Your task to perform on an android device: Open Chrome and go to settings Image 0: 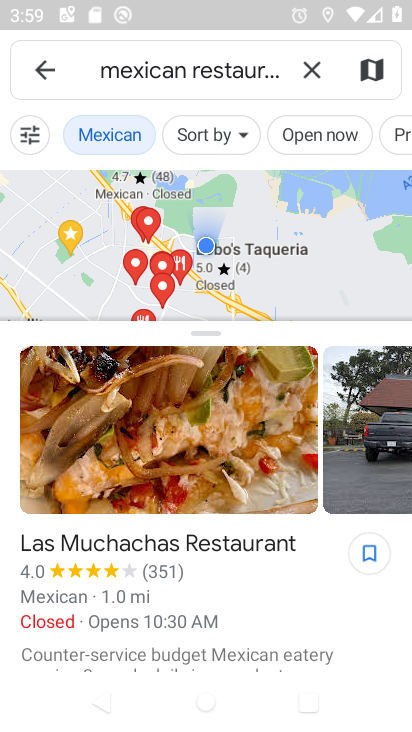
Step 0: press home button
Your task to perform on an android device: Open Chrome and go to settings Image 1: 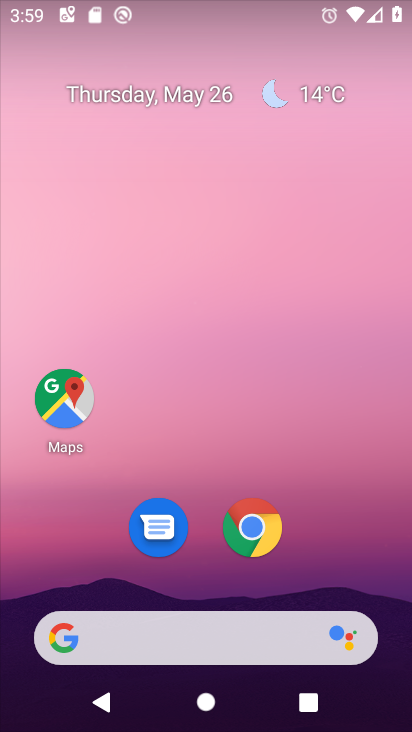
Step 1: click (257, 531)
Your task to perform on an android device: Open Chrome and go to settings Image 2: 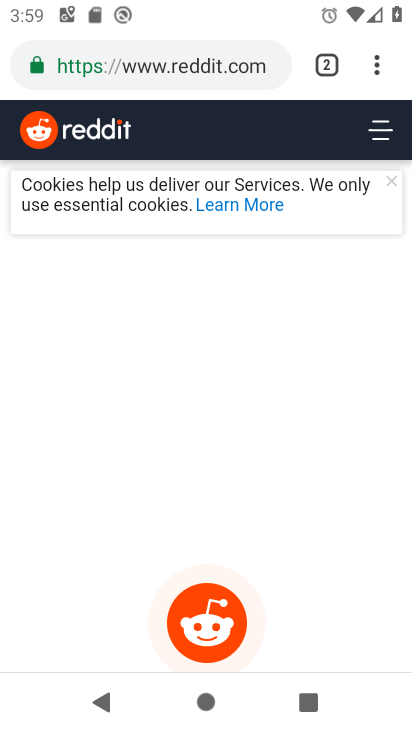
Step 2: click (379, 65)
Your task to perform on an android device: Open Chrome and go to settings Image 3: 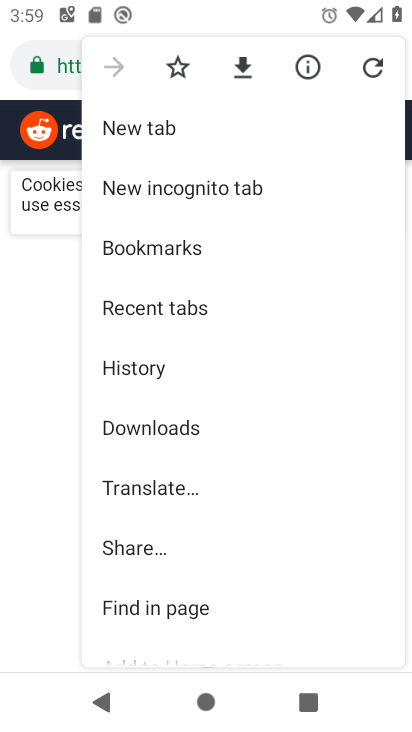
Step 3: drag from (195, 605) to (176, 237)
Your task to perform on an android device: Open Chrome and go to settings Image 4: 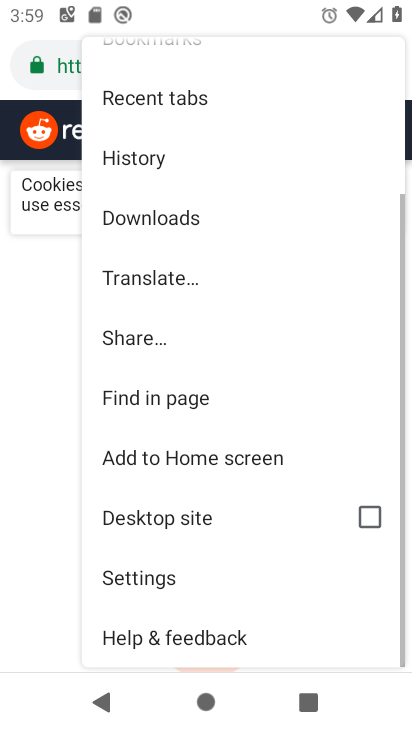
Step 4: click (179, 576)
Your task to perform on an android device: Open Chrome and go to settings Image 5: 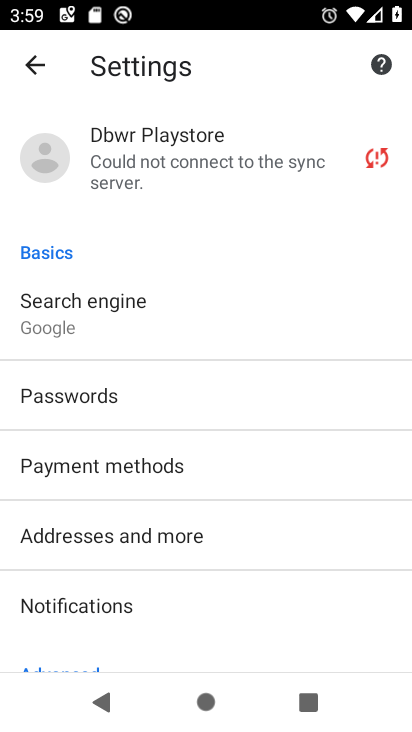
Step 5: task complete